Your task to perform on an android device: change your default location settings in chrome Image 0: 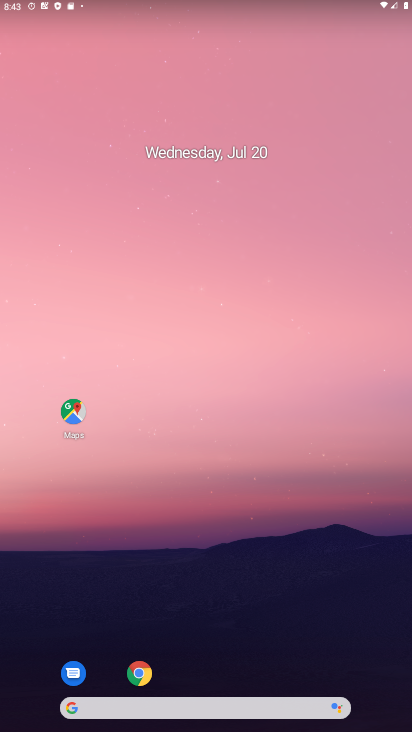
Step 0: drag from (379, 705) to (171, 92)
Your task to perform on an android device: change your default location settings in chrome Image 1: 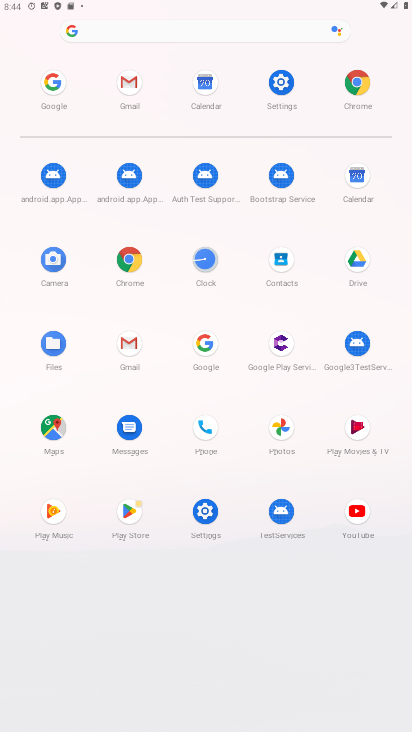
Step 1: click (125, 265)
Your task to perform on an android device: change your default location settings in chrome Image 2: 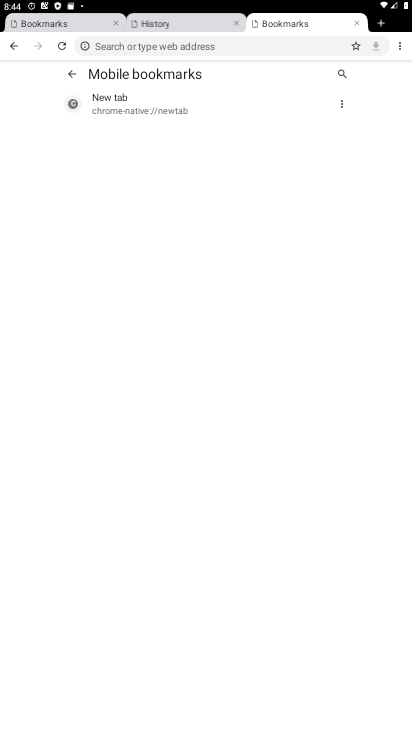
Step 2: click (402, 43)
Your task to perform on an android device: change your default location settings in chrome Image 3: 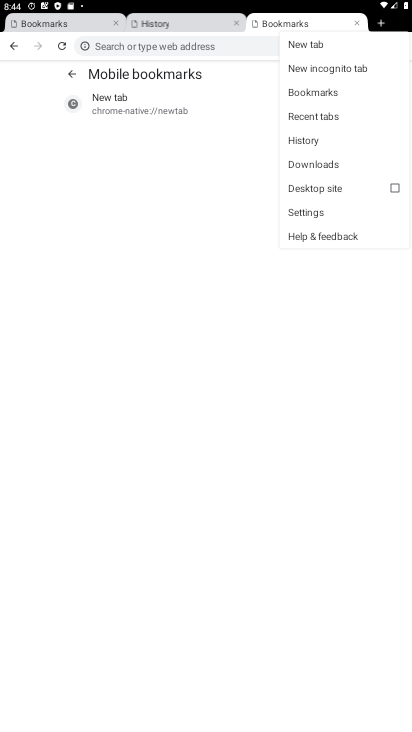
Step 3: click (315, 212)
Your task to perform on an android device: change your default location settings in chrome Image 4: 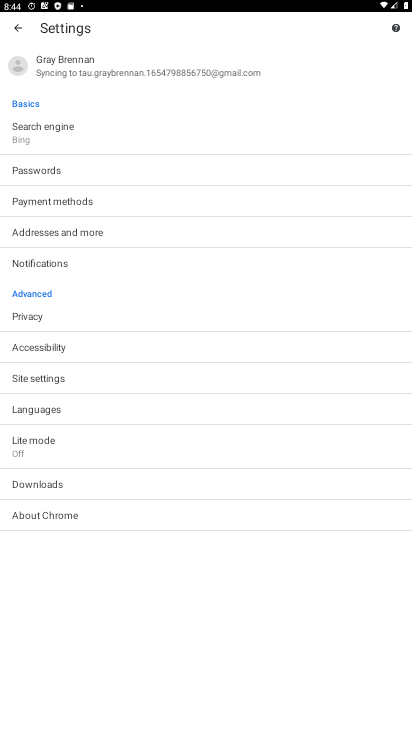
Step 4: click (51, 135)
Your task to perform on an android device: change your default location settings in chrome Image 5: 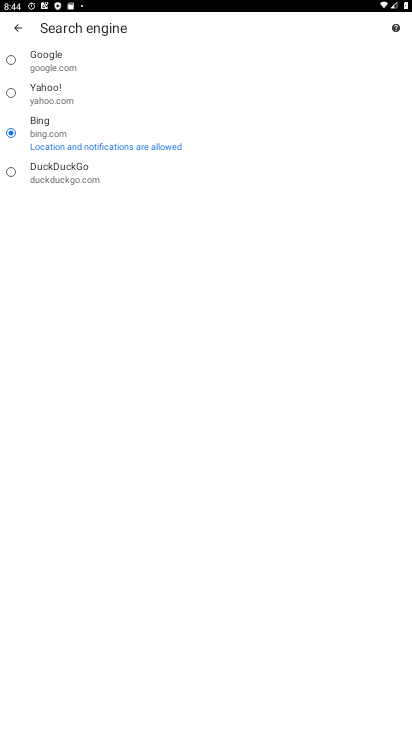
Step 5: click (43, 53)
Your task to perform on an android device: change your default location settings in chrome Image 6: 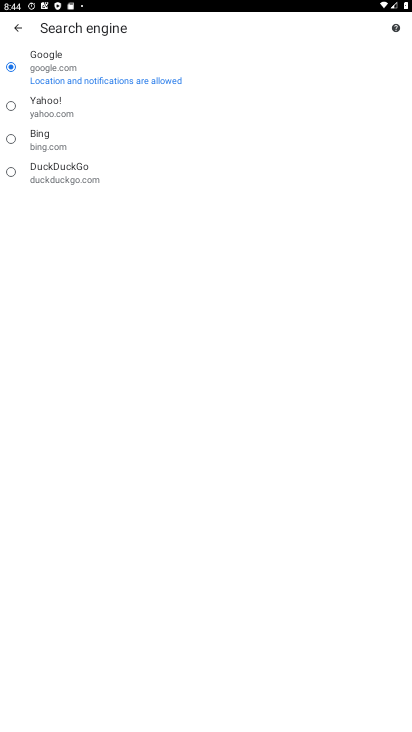
Step 6: task complete